Your task to perform on an android device: Search for vegetarian restaurants on Maps Image 0: 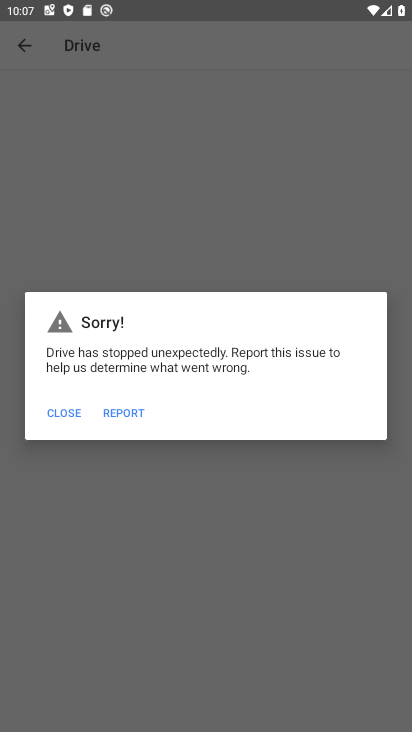
Step 0: press home button
Your task to perform on an android device: Search for vegetarian restaurants on Maps Image 1: 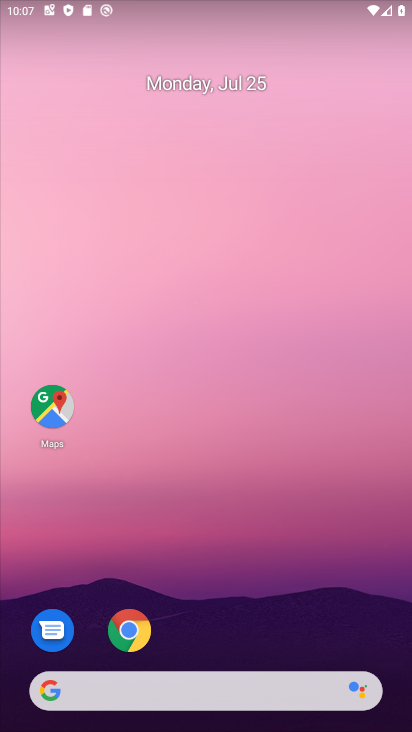
Step 1: drag from (364, 593) to (347, 99)
Your task to perform on an android device: Search for vegetarian restaurants on Maps Image 2: 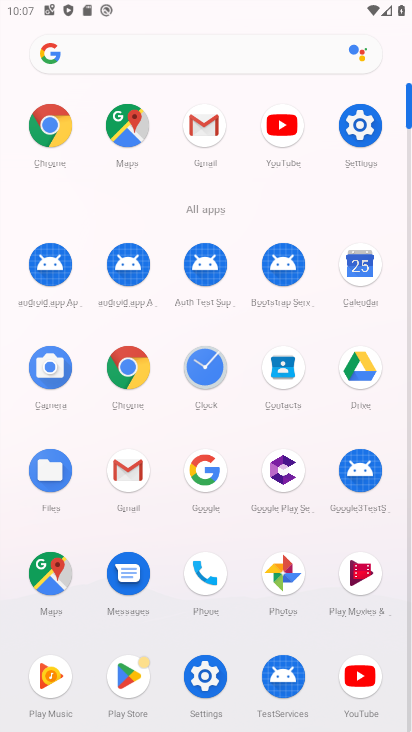
Step 2: click (53, 577)
Your task to perform on an android device: Search for vegetarian restaurants on Maps Image 3: 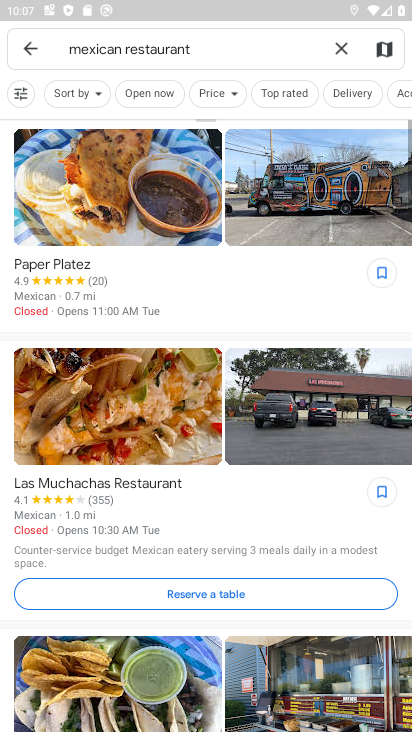
Step 3: press back button
Your task to perform on an android device: Search for vegetarian restaurants on Maps Image 4: 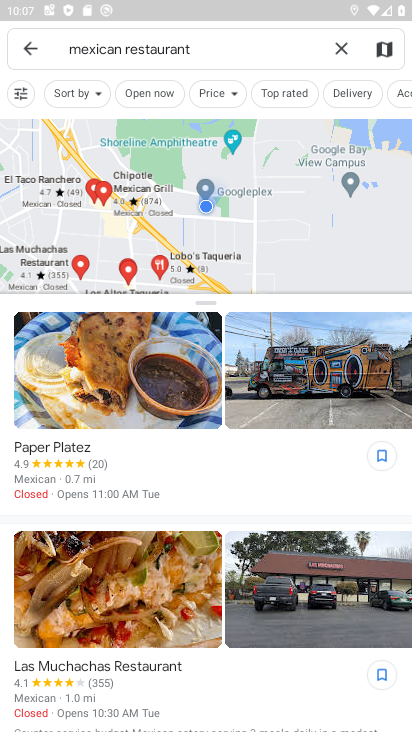
Step 4: click (340, 48)
Your task to perform on an android device: Search for vegetarian restaurants on Maps Image 5: 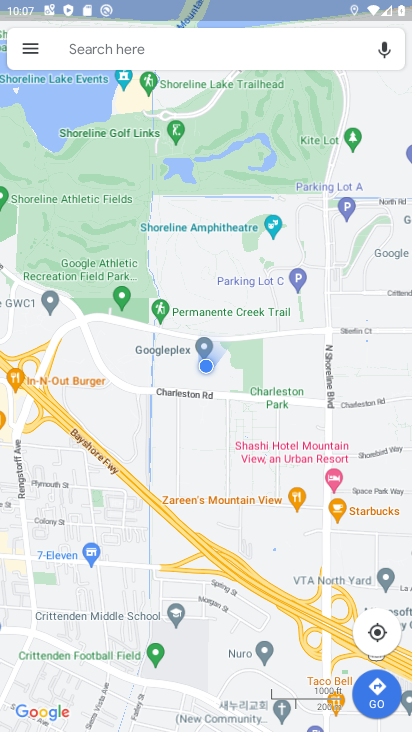
Step 5: click (272, 48)
Your task to perform on an android device: Search for vegetarian restaurants on Maps Image 6: 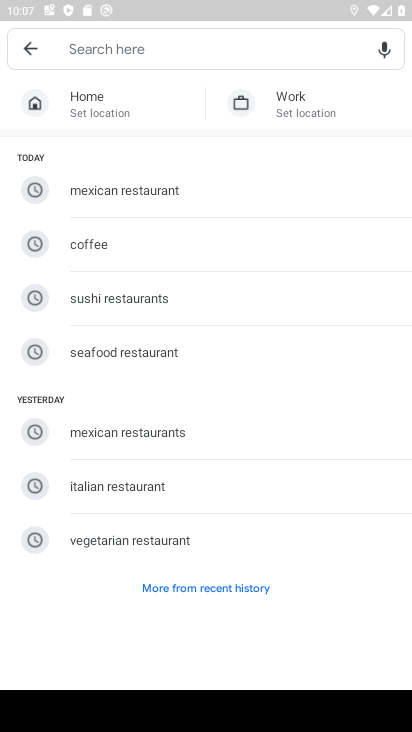
Step 6: type "vegetrain restaurants"
Your task to perform on an android device: Search for vegetarian restaurants on Maps Image 7: 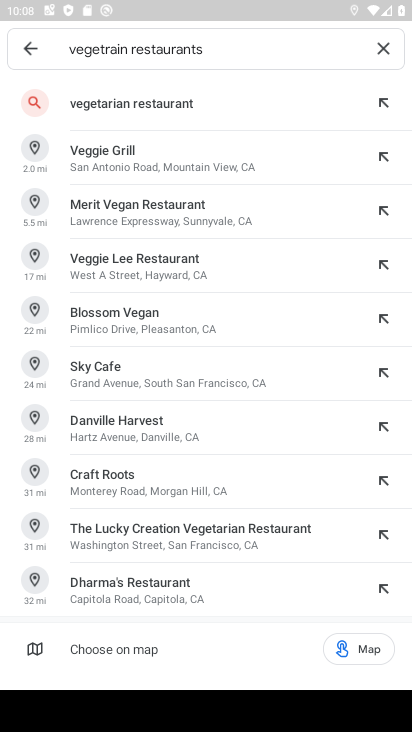
Step 7: click (262, 115)
Your task to perform on an android device: Search for vegetarian restaurants on Maps Image 8: 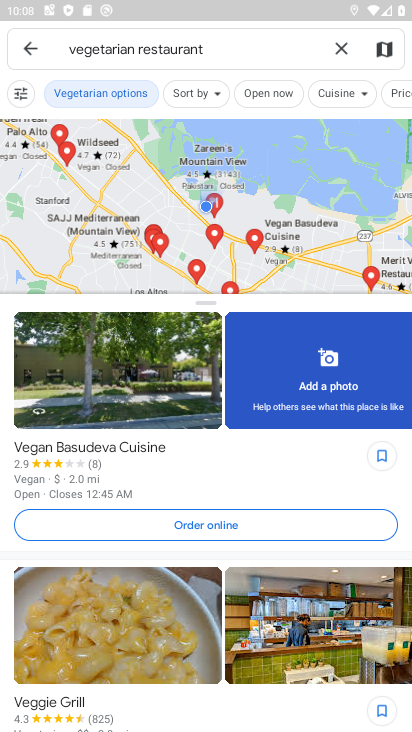
Step 8: task complete